Your task to perform on an android device: change the clock display to show seconds Image 0: 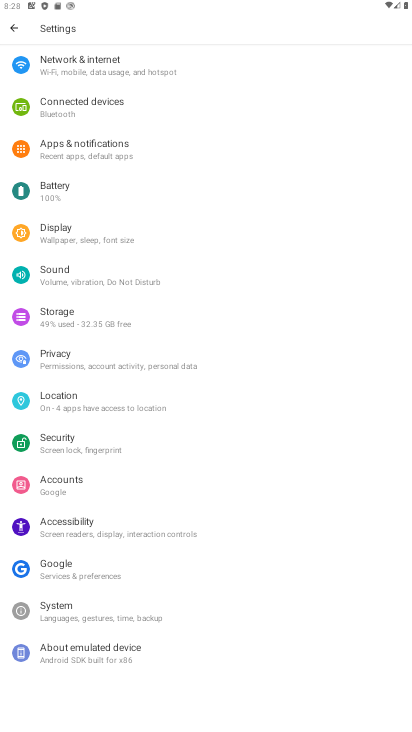
Step 0: press home button
Your task to perform on an android device: change the clock display to show seconds Image 1: 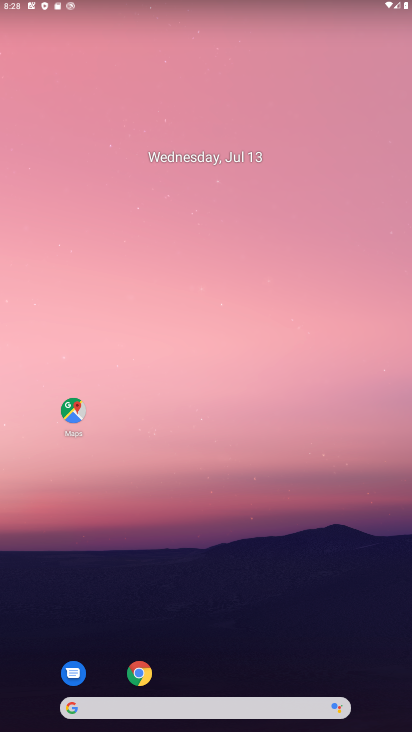
Step 1: drag from (298, 553) to (229, 166)
Your task to perform on an android device: change the clock display to show seconds Image 2: 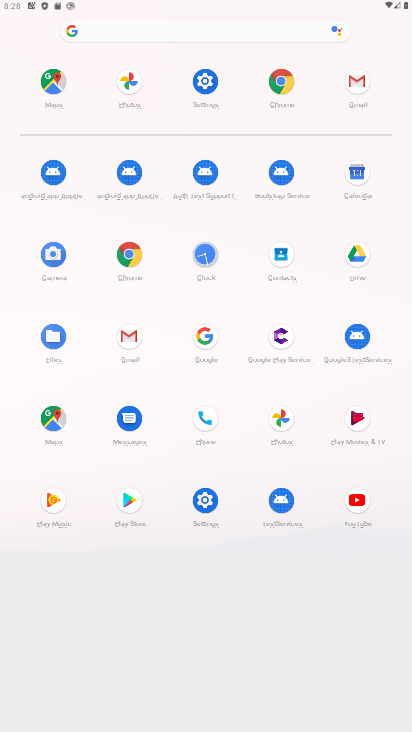
Step 2: click (205, 250)
Your task to perform on an android device: change the clock display to show seconds Image 3: 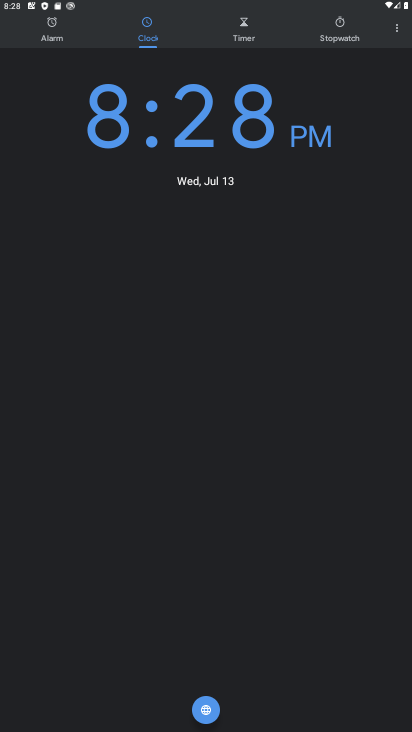
Step 3: click (396, 31)
Your task to perform on an android device: change the clock display to show seconds Image 4: 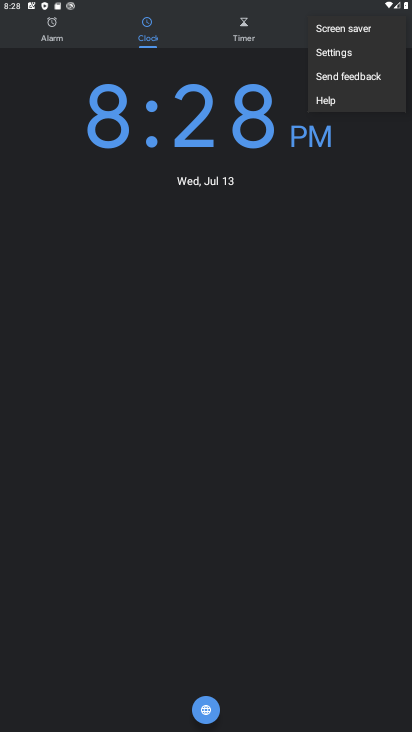
Step 4: click (349, 52)
Your task to perform on an android device: change the clock display to show seconds Image 5: 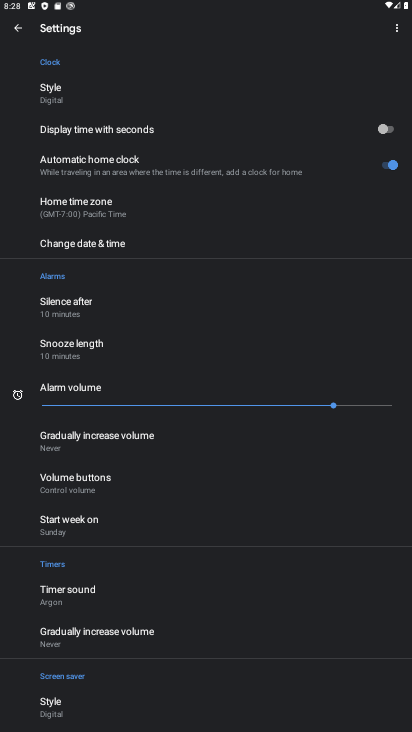
Step 5: click (388, 129)
Your task to perform on an android device: change the clock display to show seconds Image 6: 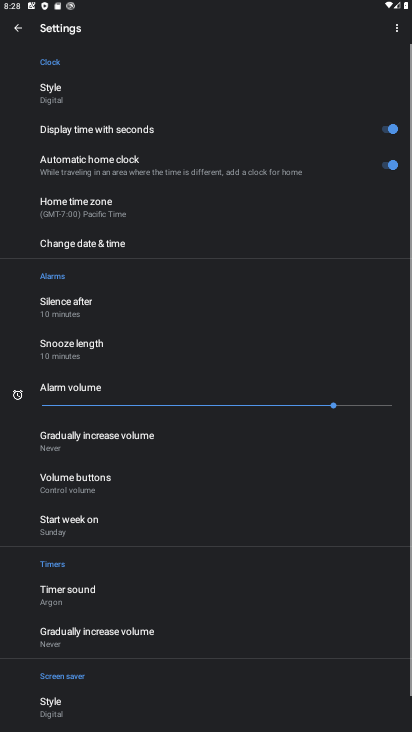
Step 6: task complete